Your task to perform on an android device: Open wifi settings Image 0: 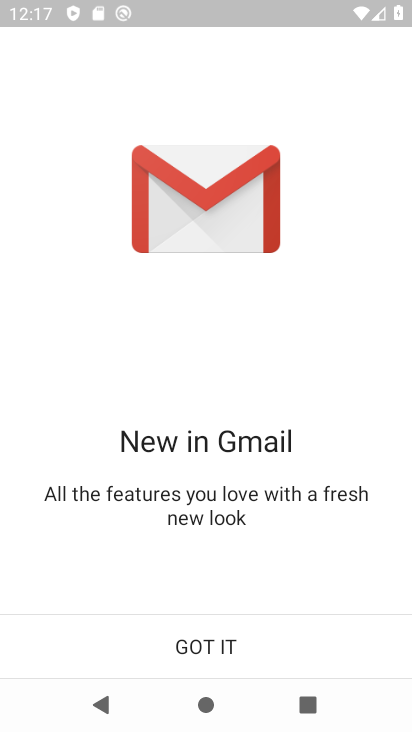
Step 0: click (120, 630)
Your task to perform on an android device: Open wifi settings Image 1: 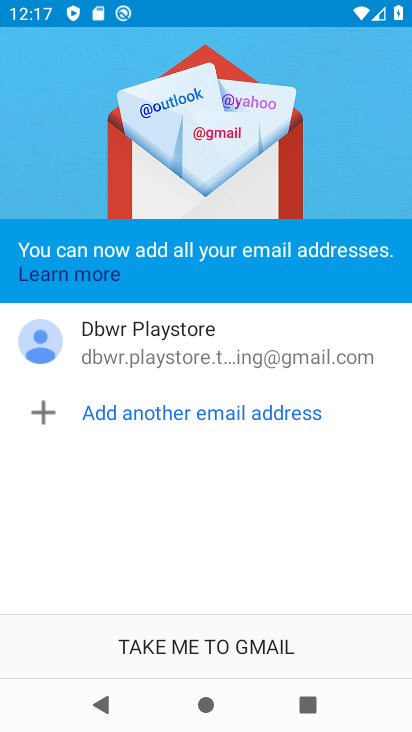
Step 1: click (120, 630)
Your task to perform on an android device: Open wifi settings Image 2: 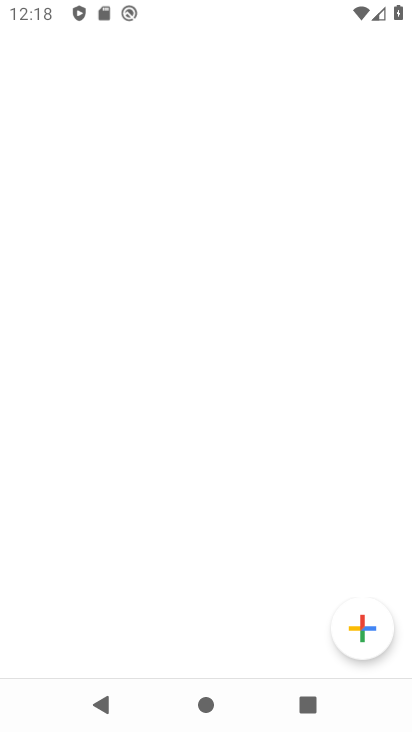
Step 2: click (120, 630)
Your task to perform on an android device: Open wifi settings Image 3: 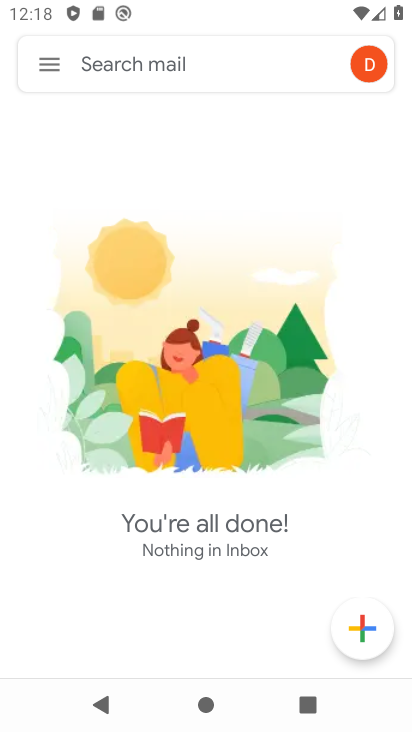
Step 3: press home button
Your task to perform on an android device: Open wifi settings Image 4: 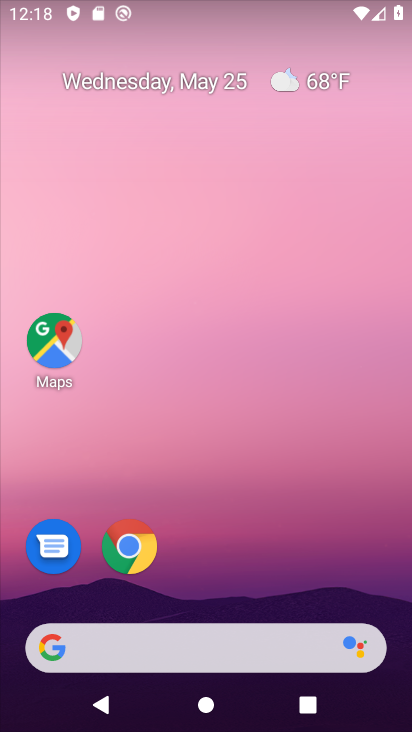
Step 4: drag from (221, 582) to (271, 4)
Your task to perform on an android device: Open wifi settings Image 5: 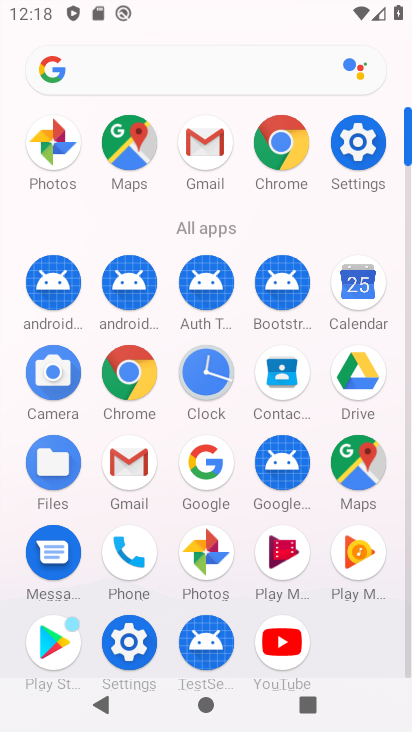
Step 5: click (359, 180)
Your task to perform on an android device: Open wifi settings Image 6: 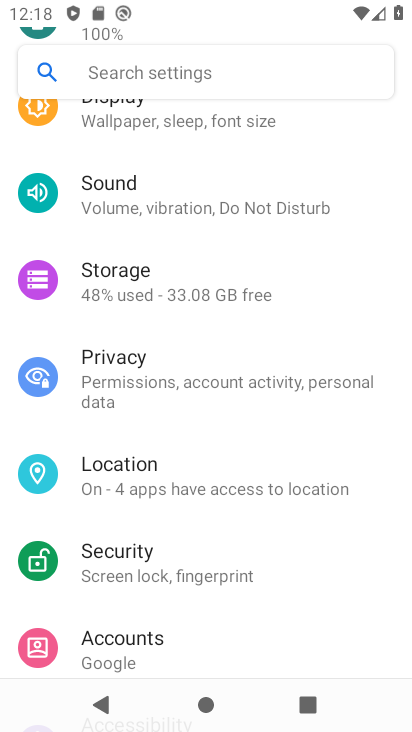
Step 6: drag from (189, 173) to (243, 426)
Your task to perform on an android device: Open wifi settings Image 7: 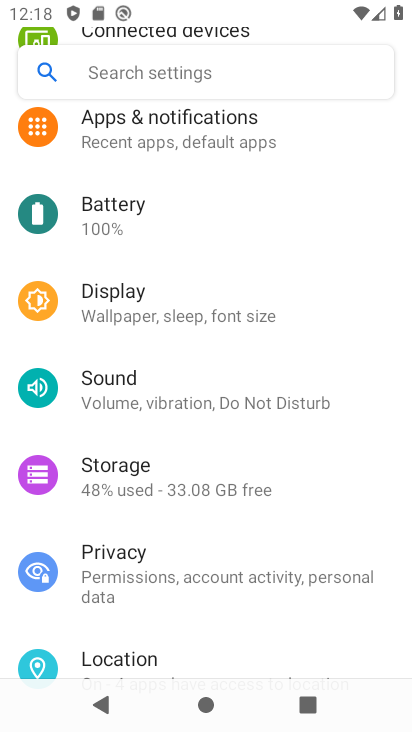
Step 7: drag from (226, 242) to (250, 608)
Your task to perform on an android device: Open wifi settings Image 8: 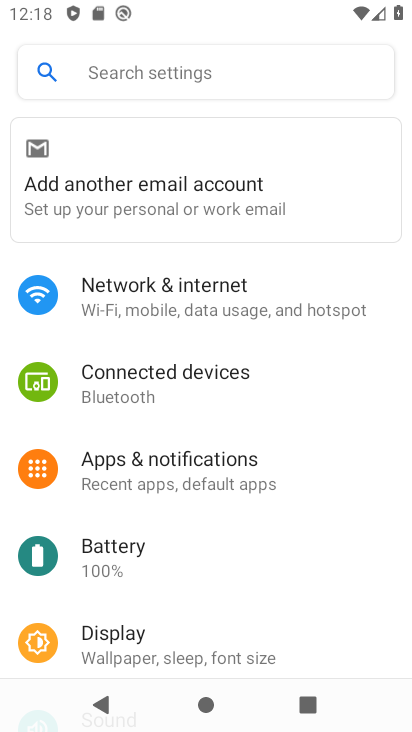
Step 8: click (202, 289)
Your task to perform on an android device: Open wifi settings Image 9: 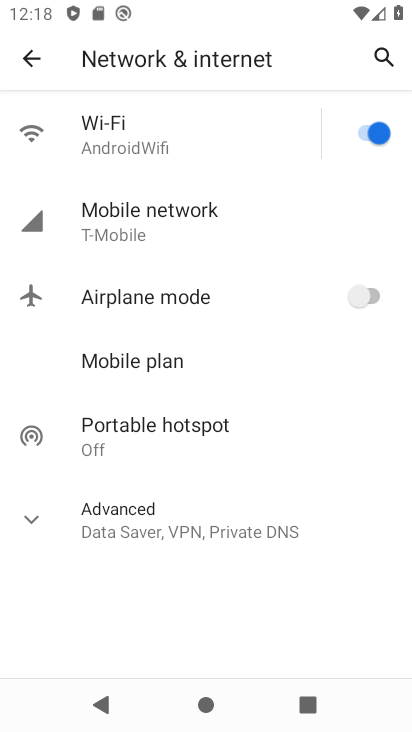
Step 9: click (201, 129)
Your task to perform on an android device: Open wifi settings Image 10: 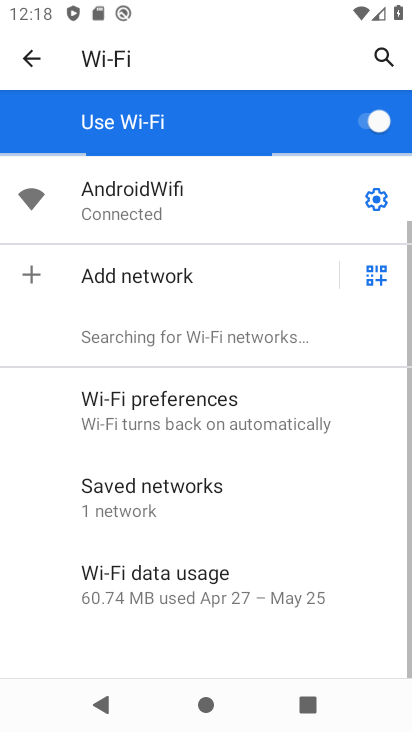
Step 10: task complete